Your task to perform on an android device: toggle notification dots Image 0: 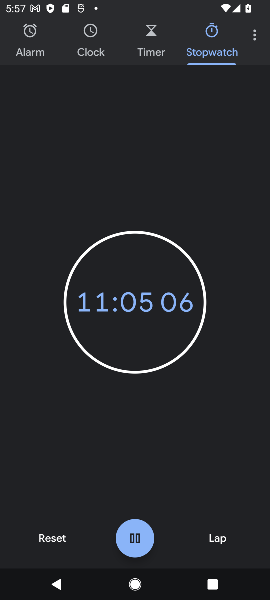
Step 0: press home button
Your task to perform on an android device: toggle notification dots Image 1: 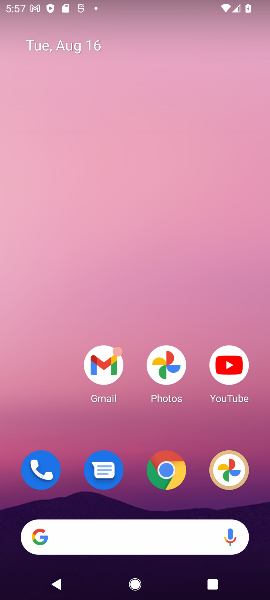
Step 1: drag from (193, 552) to (179, 91)
Your task to perform on an android device: toggle notification dots Image 2: 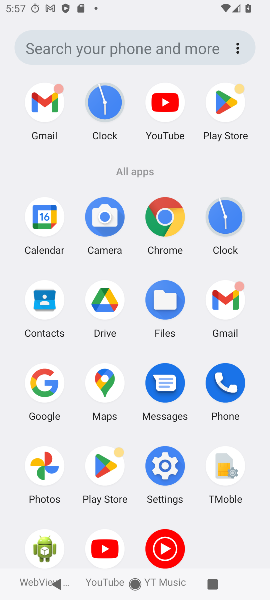
Step 2: click (172, 455)
Your task to perform on an android device: toggle notification dots Image 3: 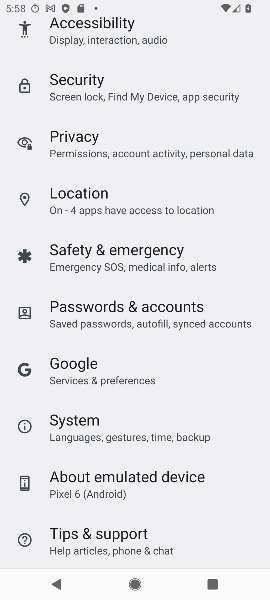
Step 3: drag from (133, 185) to (131, 584)
Your task to perform on an android device: toggle notification dots Image 4: 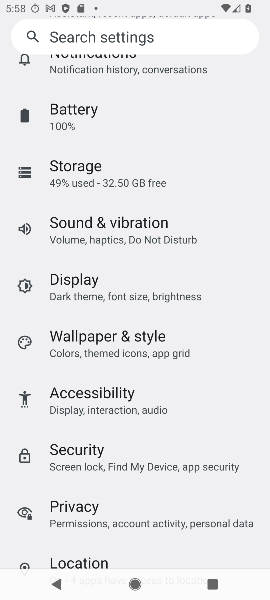
Step 4: drag from (126, 165) to (144, 507)
Your task to perform on an android device: toggle notification dots Image 5: 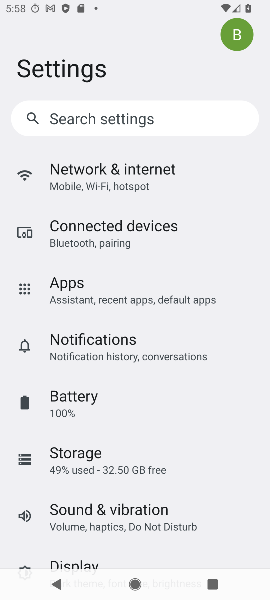
Step 5: click (112, 347)
Your task to perform on an android device: toggle notification dots Image 6: 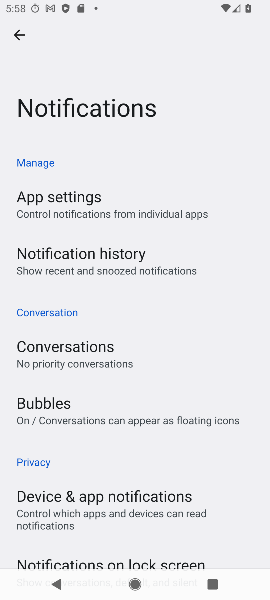
Step 6: drag from (111, 445) to (142, 155)
Your task to perform on an android device: toggle notification dots Image 7: 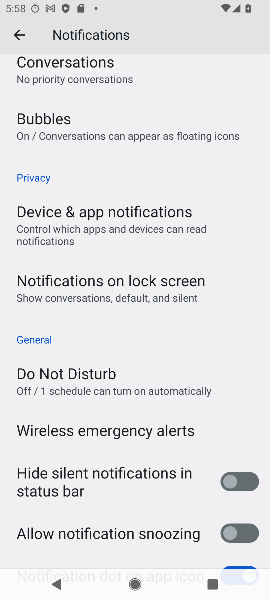
Step 7: drag from (141, 335) to (143, 545)
Your task to perform on an android device: toggle notification dots Image 8: 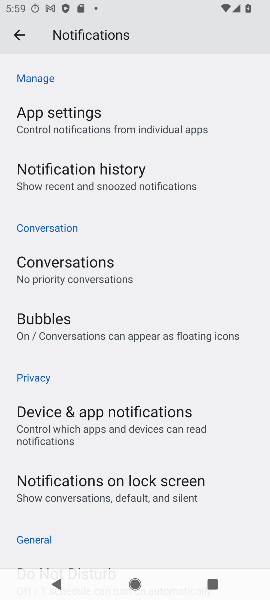
Step 8: drag from (142, 467) to (158, 5)
Your task to perform on an android device: toggle notification dots Image 9: 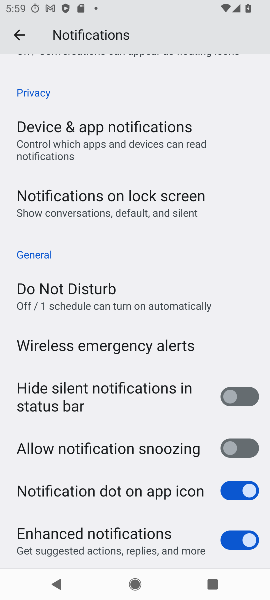
Step 9: click (163, 486)
Your task to perform on an android device: toggle notification dots Image 10: 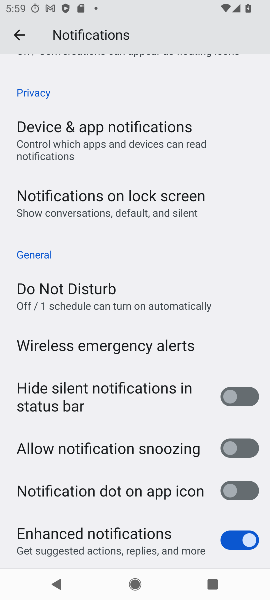
Step 10: task complete